Your task to perform on an android device: Go to Maps Image 0: 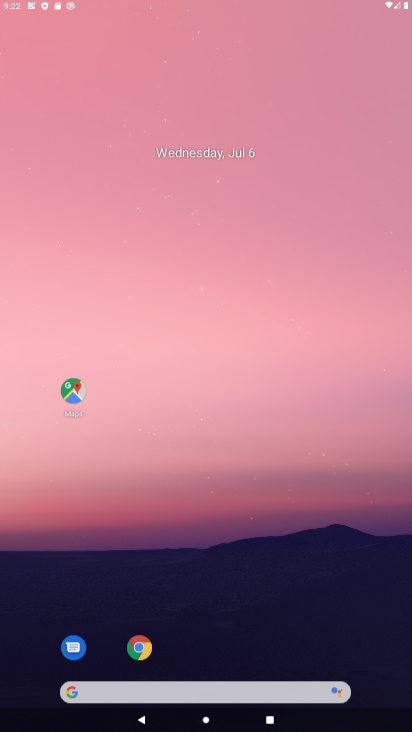
Step 0: click (143, 648)
Your task to perform on an android device: Go to Maps Image 1: 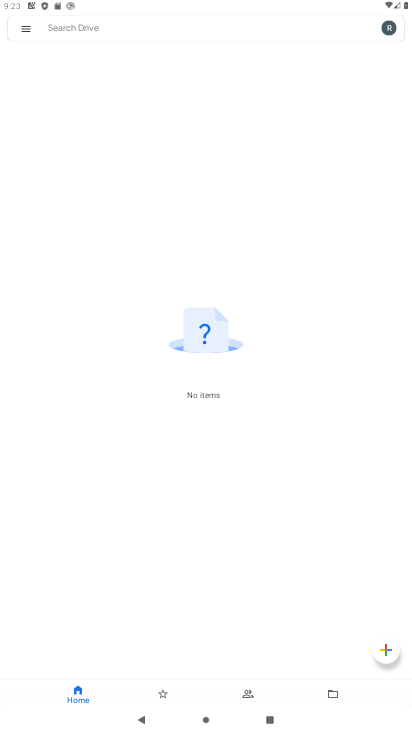
Step 1: press home button
Your task to perform on an android device: Go to Maps Image 2: 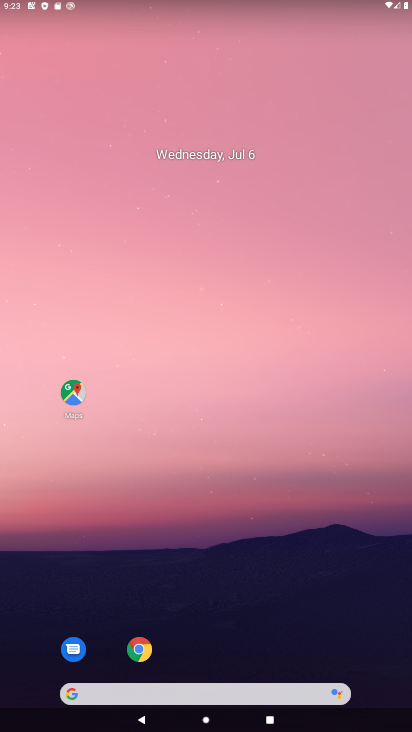
Step 2: click (72, 391)
Your task to perform on an android device: Go to Maps Image 3: 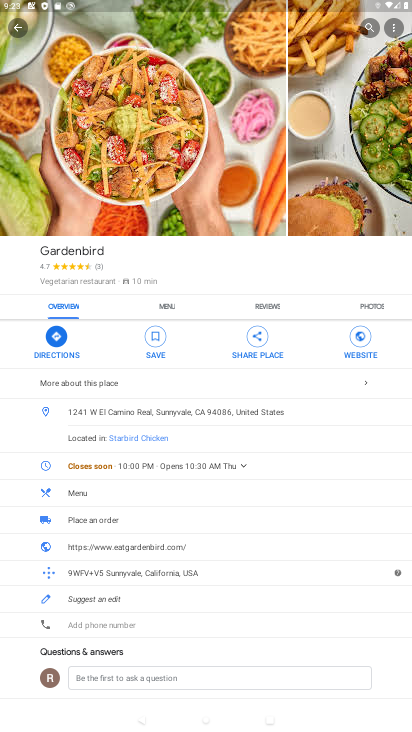
Step 3: task complete